Your task to perform on an android device: Go to display settings Image 0: 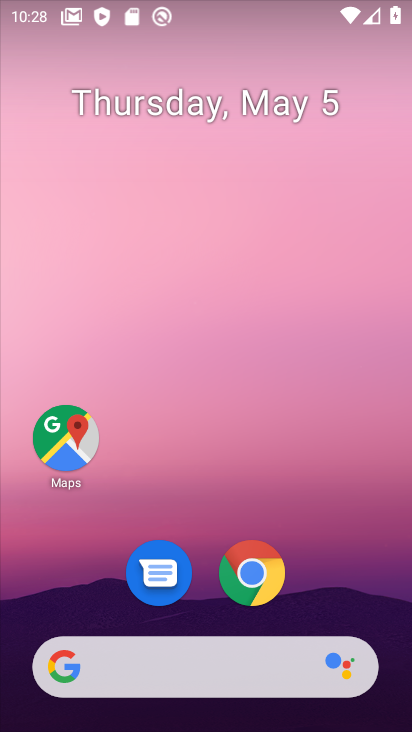
Step 0: drag from (178, 334) to (282, 112)
Your task to perform on an android device: Go to display settings Image 1: 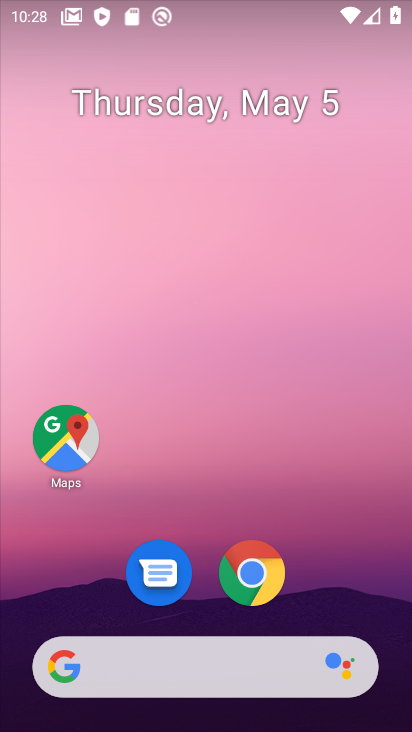
Step 1: drag from (46, 615) to (366, 128)
Your task to perform on an android device: Go to display settings Image 2: 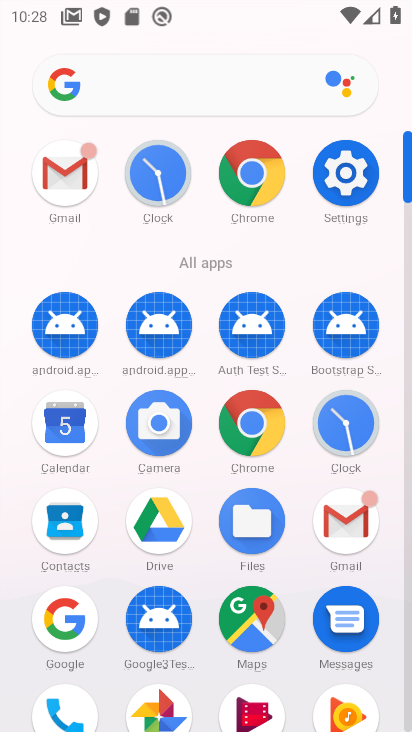
Step 2: click (351, 189)
Your task to perform on an android device: Go to display settings Image 3: 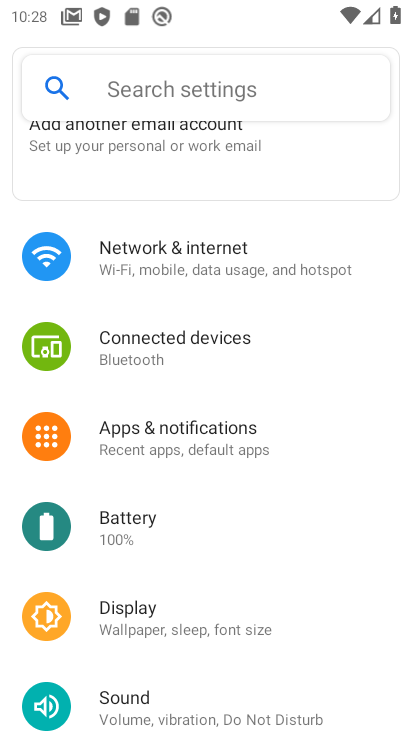
Step 3: click (110, 613)
Your task to perform on an android device: Go to display settings Image 4: 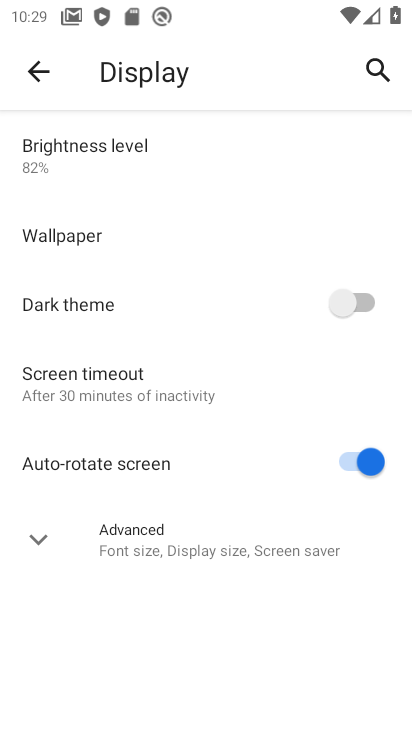
Step 4: task complete